Your task to perform on an android device: Open Google Maps Image 0: 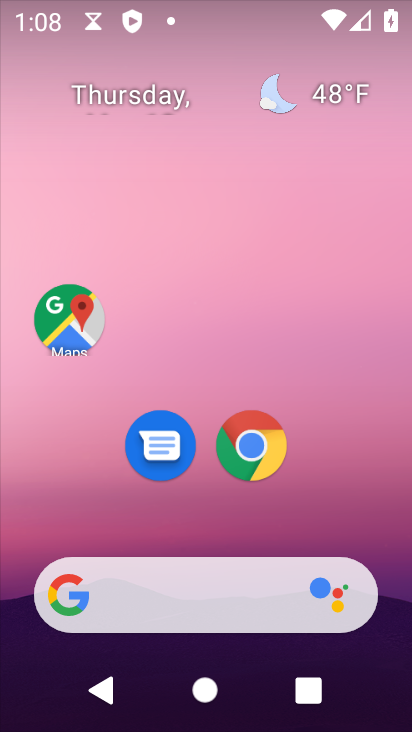
Step 0: click (253, 450)
Your task to perform on an android device: Open Google Maps Image 1: 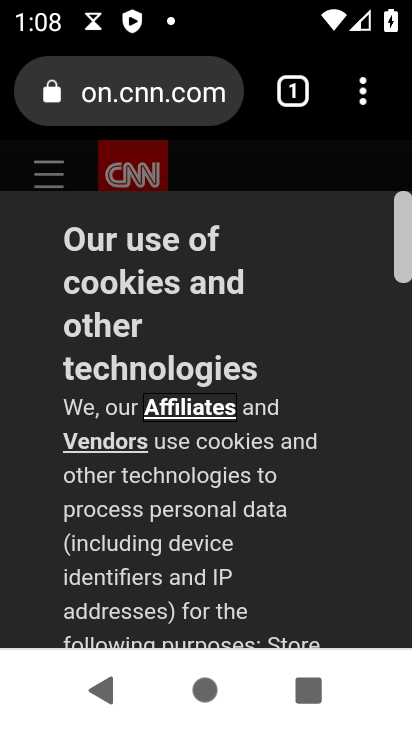
Step 1: press home button
Your task to perform on an android device: Open Google Maps Image 2: 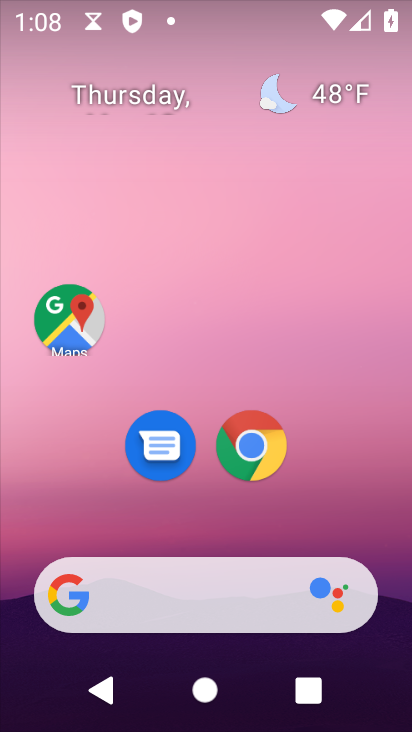
Step 2: click (51, 346)
Your task to perform on an android device: Open Google Maps Image 3: 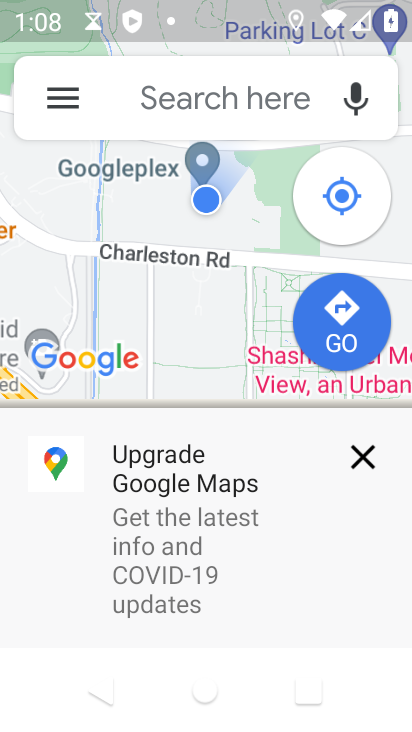
Step 3: task complete